Your task to perform on an android device: see tabs open on other devices in the chrome app Image 0: 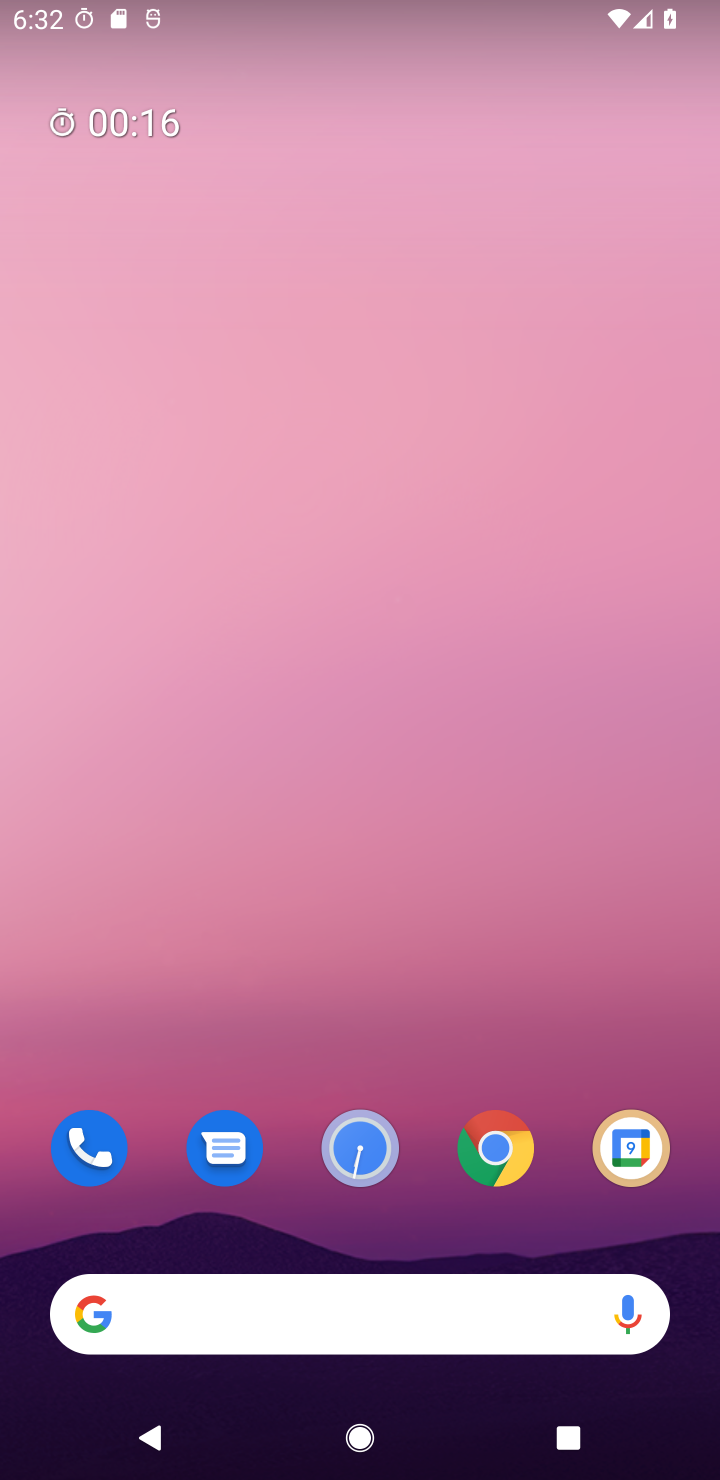
Step 0: click (486, 1132)
Your task to perform on an android device: see tabs open on other devices in the chrome app Image 1: 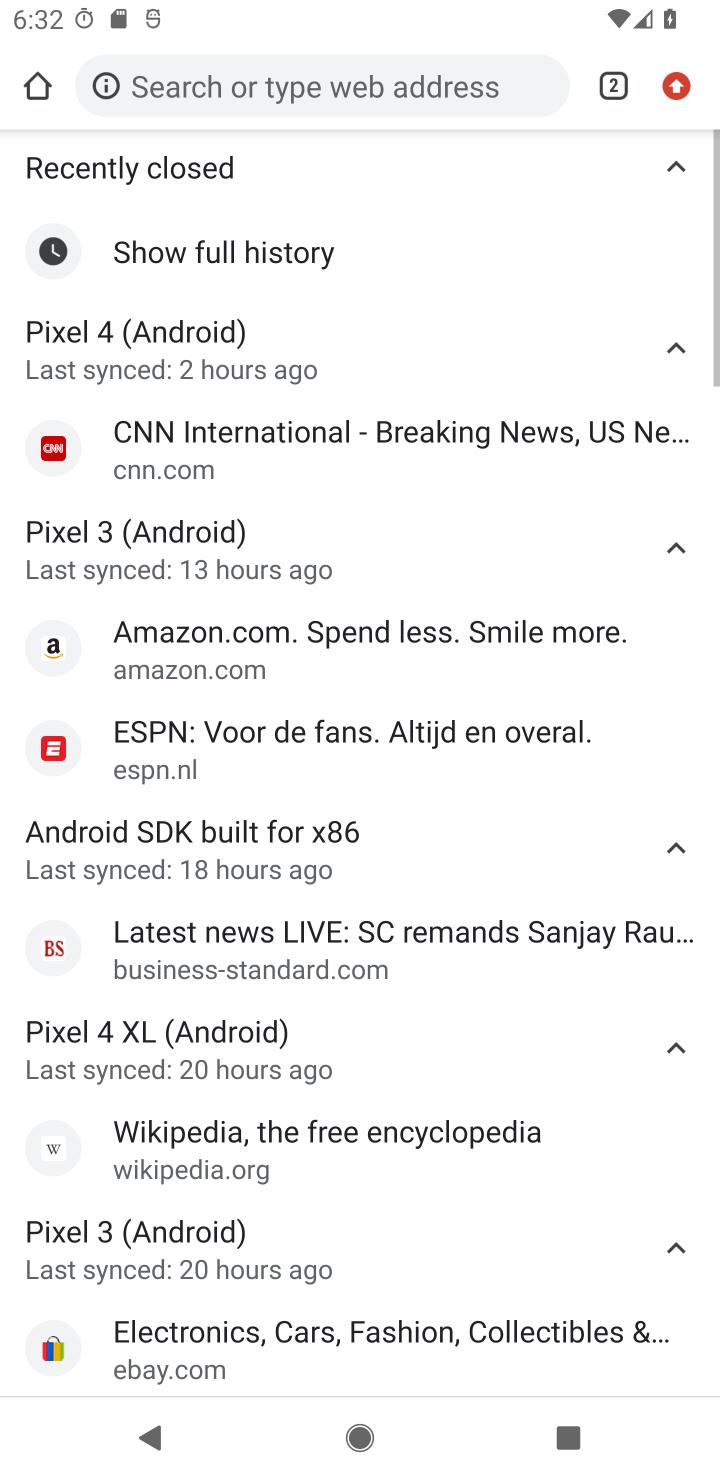
Step 1: task complete